Your task to perform on an android device: empty trash in the gmail app Image 0: 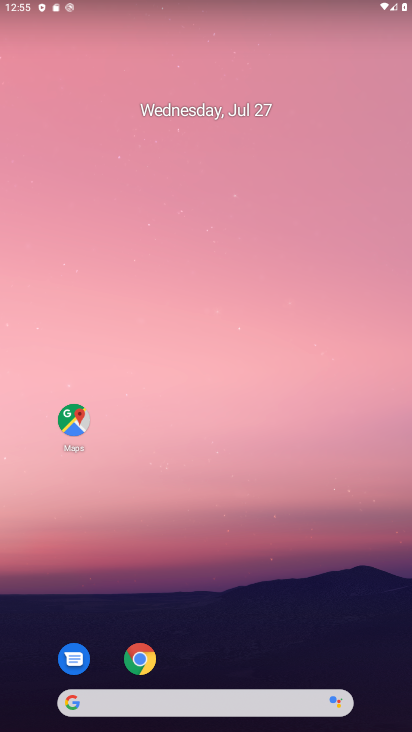
Step 0: drag from (347, 604) to (263, 2)
Your task to perform on an android device: empty trash in the gmail app Image 1: 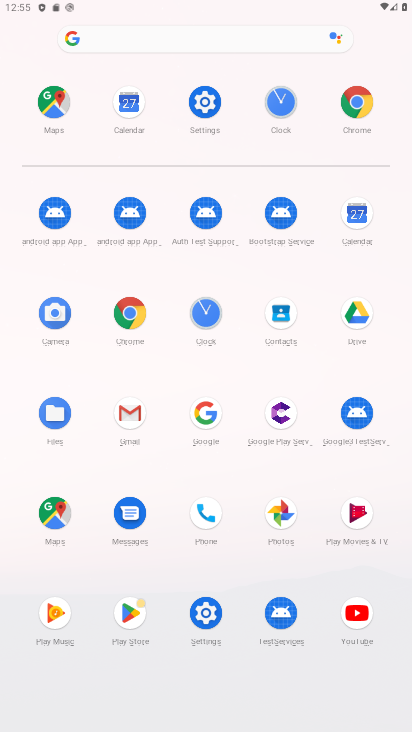
Step 1: click (129, 423)
Your task to perform on an android device: empty trash in the gmail app Image 2: 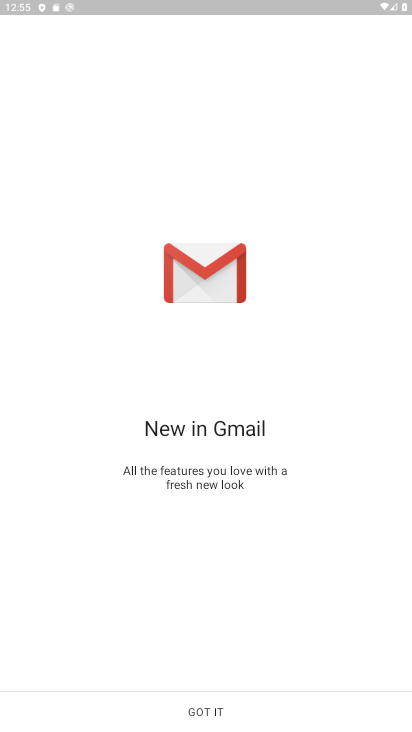
Step 2: click (211, 702)
Your task to perform on an android device: empty trash in the gmail app Image 3: 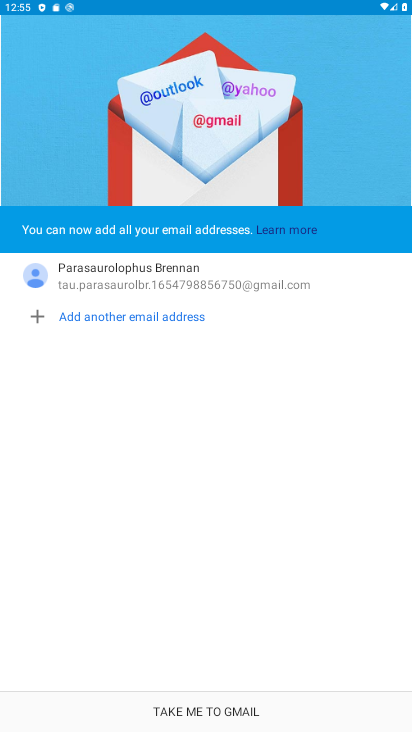
Step 3: click (209, 699)
Your task to perform on an android device: empty trash in the gmail app Image 4: 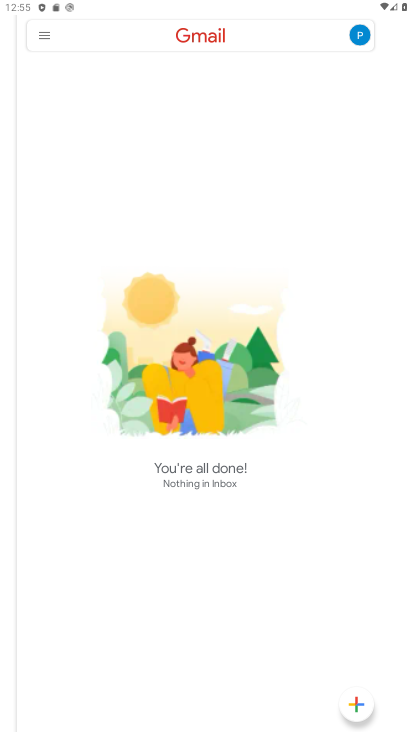
Step 4: click (67, 28)
Your task to perform on an android device: empty trash in the gmail app Image 5: 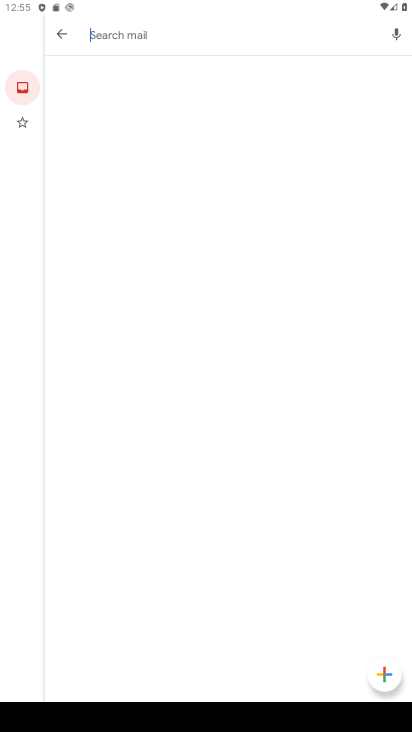
Step 5: click (63, 31)
Your task to perform on an android device: empty trash in the gmail app Image 6: 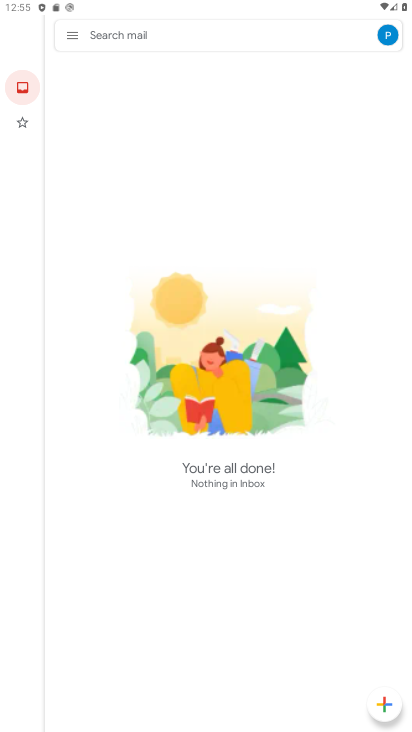
Step 6: click (63, 31)
Your task to perform on an android device: empty trash in the gmail app Image 7: 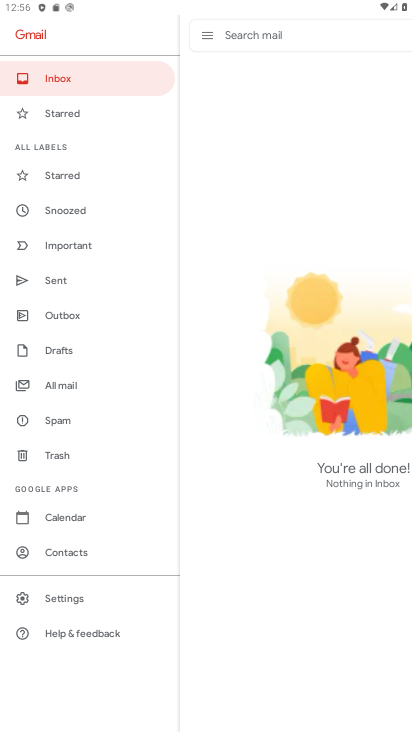
Step 7: click (66, 449)
Your task to perform on an android device: empty trash in the gmail app Image 8: 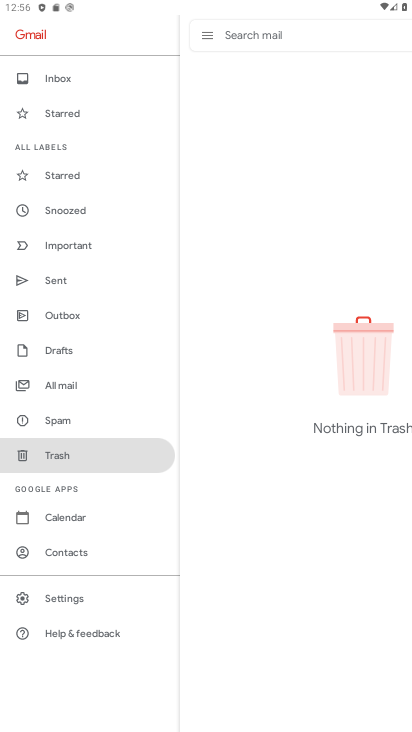
Step 8: task complete